Your task to perform on an android device: Go to Maps Image 0: 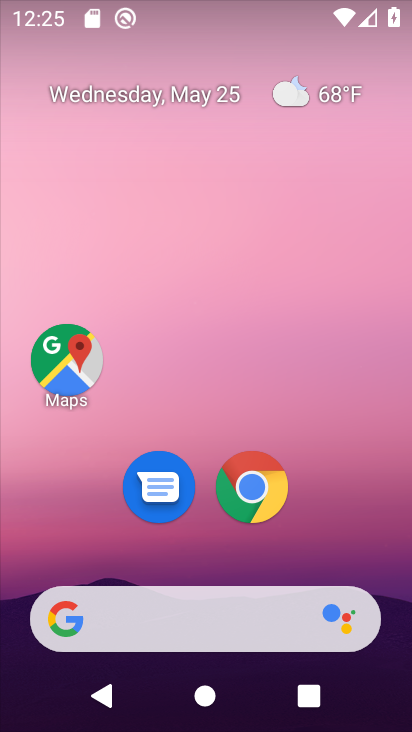
Step 0: click (88, 351)
Your task to perform on an android device: Go to Maps Image 1: 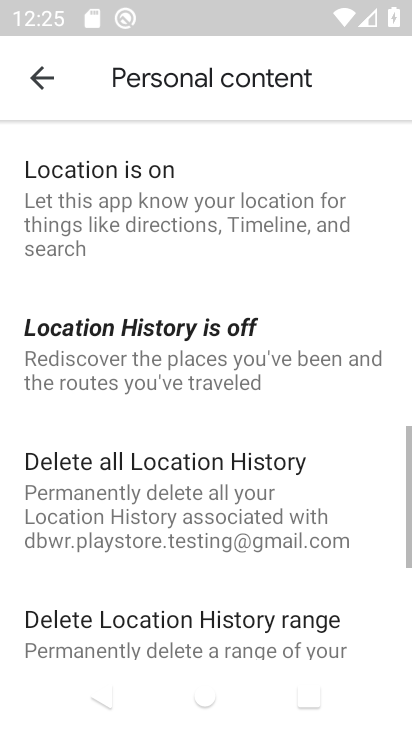
Step 1: click (30, 75)
Your task to perform on an android device: Go to Maps Image 2: 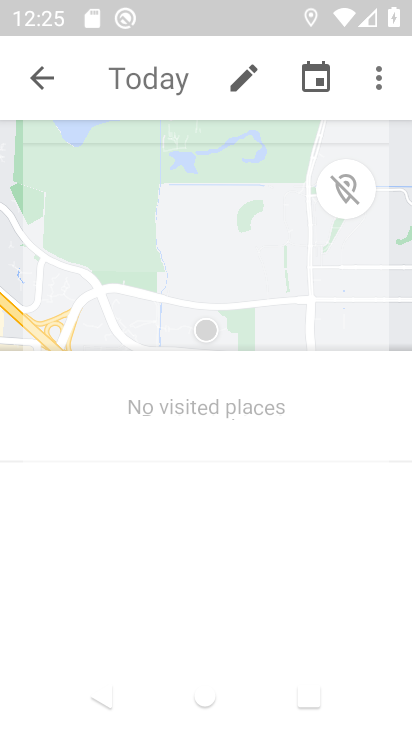
Step 2: task complete